Your task to perform on an android device: Open the web browser Image 0: 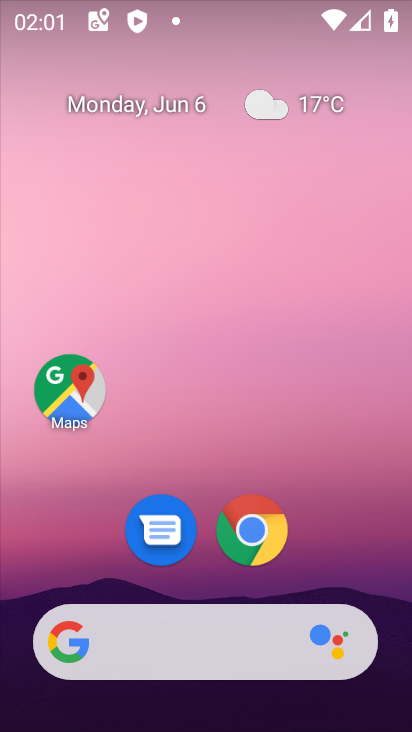
Step 0: click (267, 506)
Your task to perform on an android device: Open the web browser Image 1: 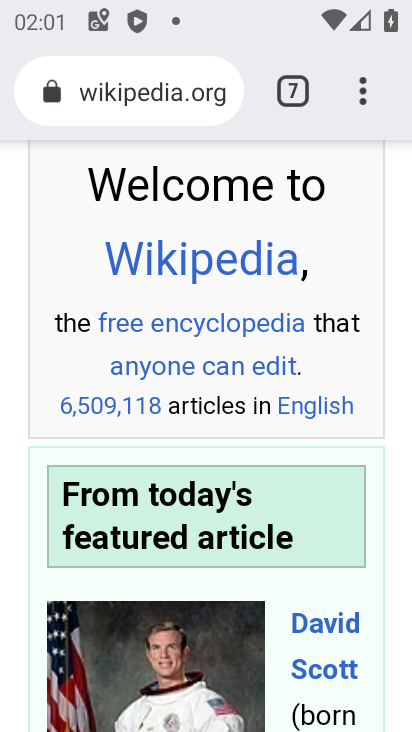
Step 1: task complete